Your task to perform on an android device: Open accessibility settings Image 0: 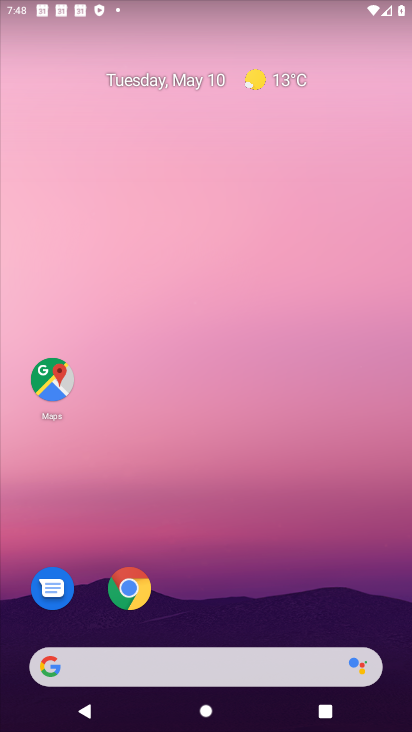
Step 0: drag from (192, 622) to (159, 150)
Your task to perform on an android device: Open accessibility settings Image 1: 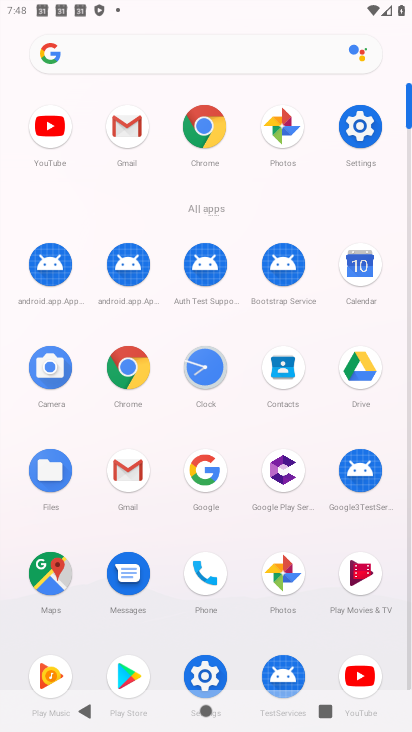
Step 1: click (362, 133)
Your task to perform on an android device: Open accessibility settings Image 2: 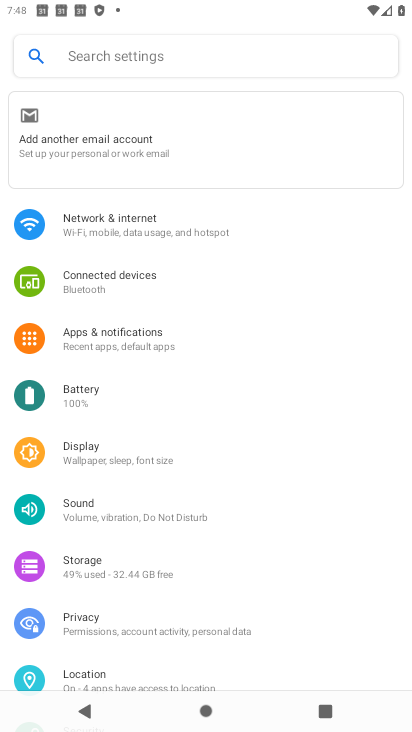
Step 2: drag from (193, 617) to (218, 193)
Your task to perform on an android device: Open accessibility settings Image 3: 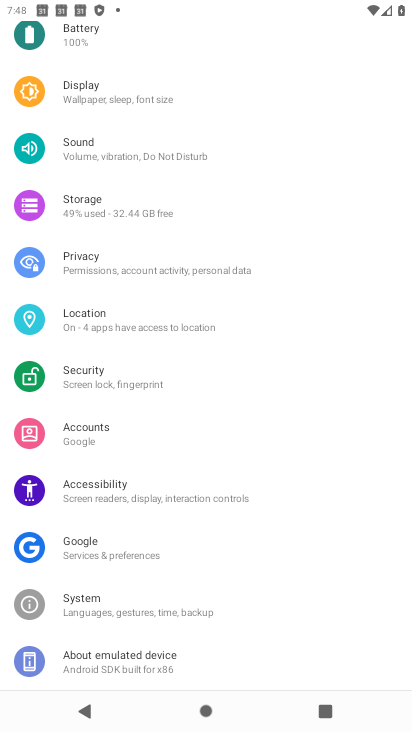
Step 3: click (213, 491)
Your task to perform on an android device: Open accessibility settings Image 4: 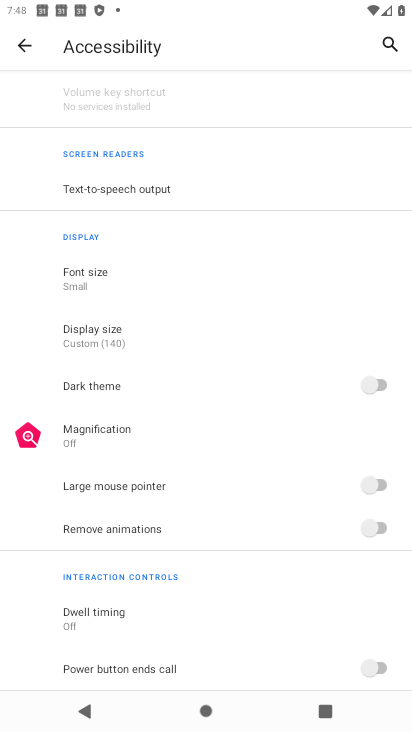
Step 4: task complete